Your task to perform on an android device: Open maps Image 0: 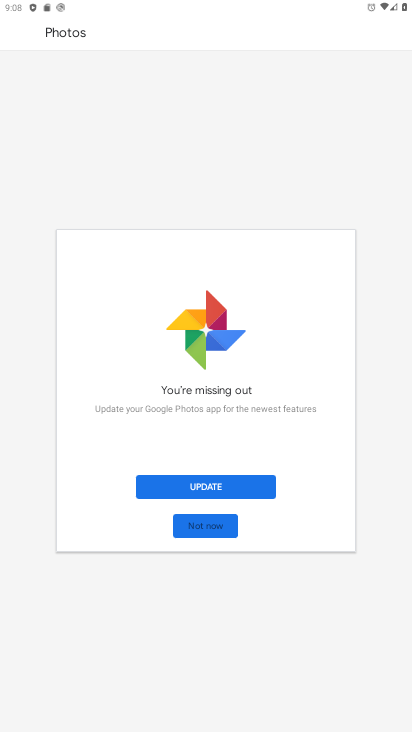
Step 0: press home button
Your task to perform on an android device: Open maps Image 1: 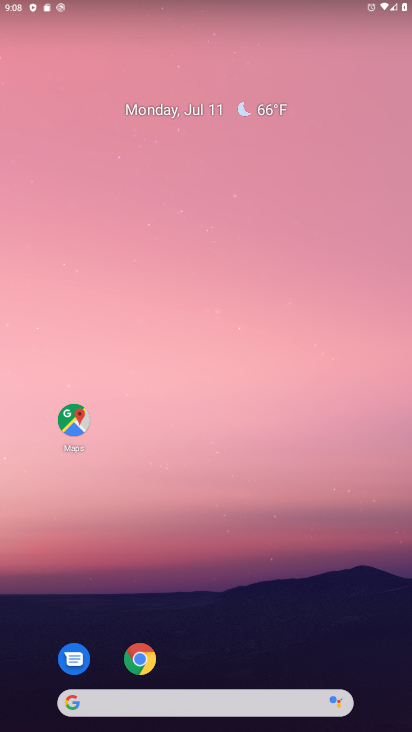
Step 1: drag from (364, 652) to (377, 151)
Your task to perform on an android device: Open maps Image 2: 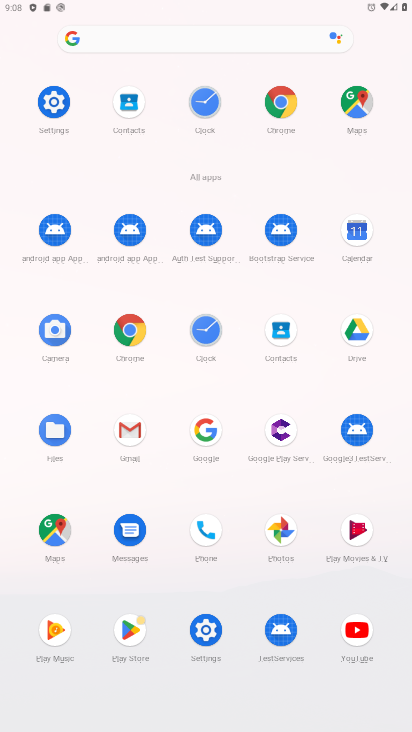
Step 2: click (55, 531)
Your task to perform on an android device: Open maps Image 3: 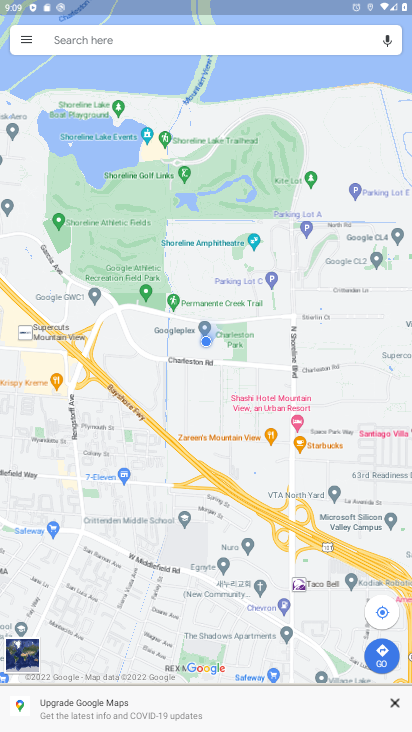
Step 3: task complete